Your task to perform on an android device: Go to network settings Image 0: 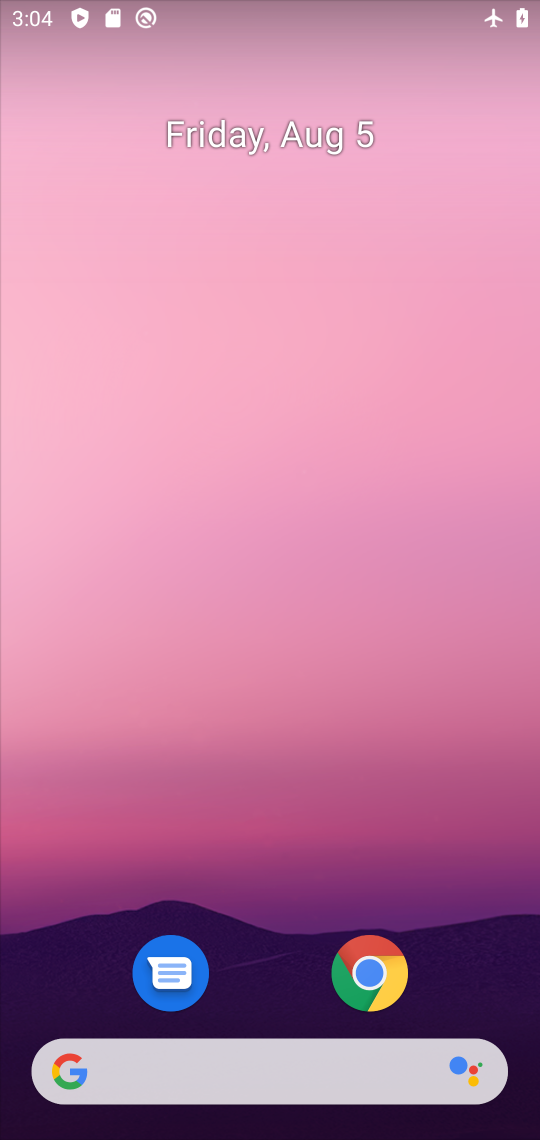
Step 0: drag from (291, 1018) to (223, 0)
Your task to perform on an android device: Go to network settings Image 1: 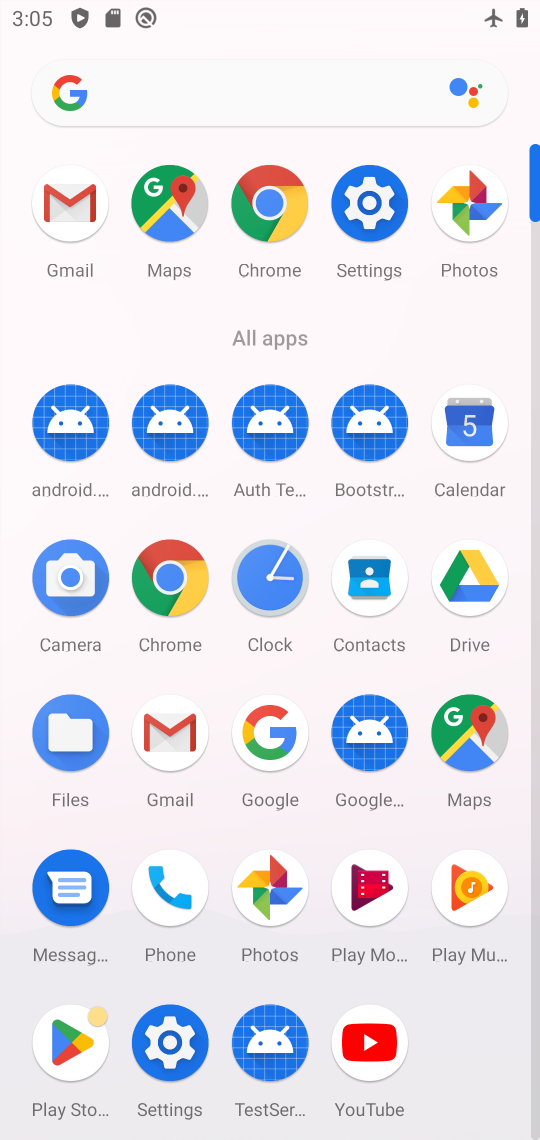
Step 1: click (188, 1046)
Your task to perform on an android device: Go to network settings Image 2: 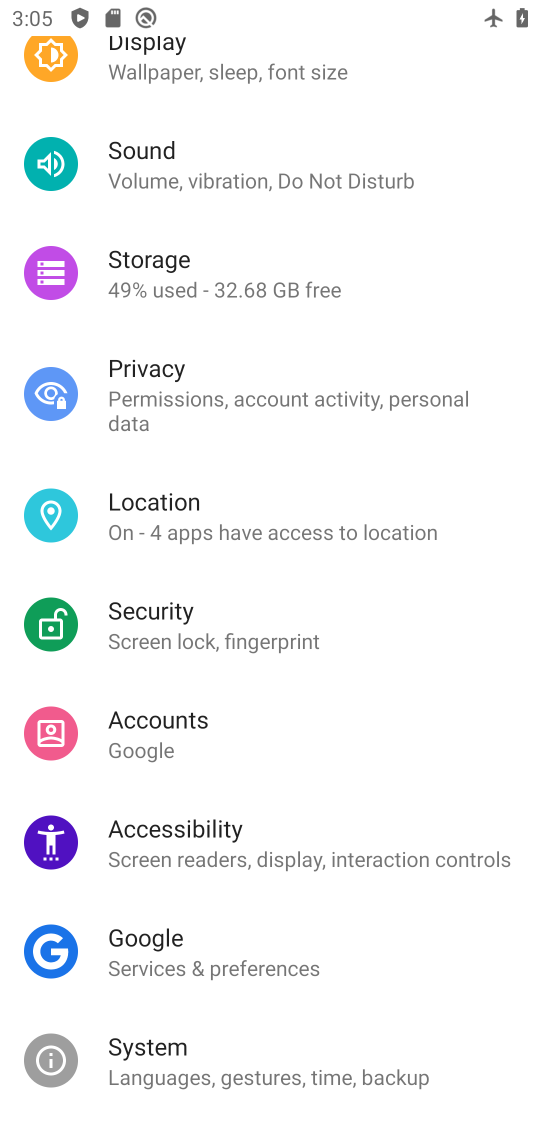
Step 2: drag from (288, 359) to (298, 1084)
Your task to perform on an android device: Go to network settings Image 3: 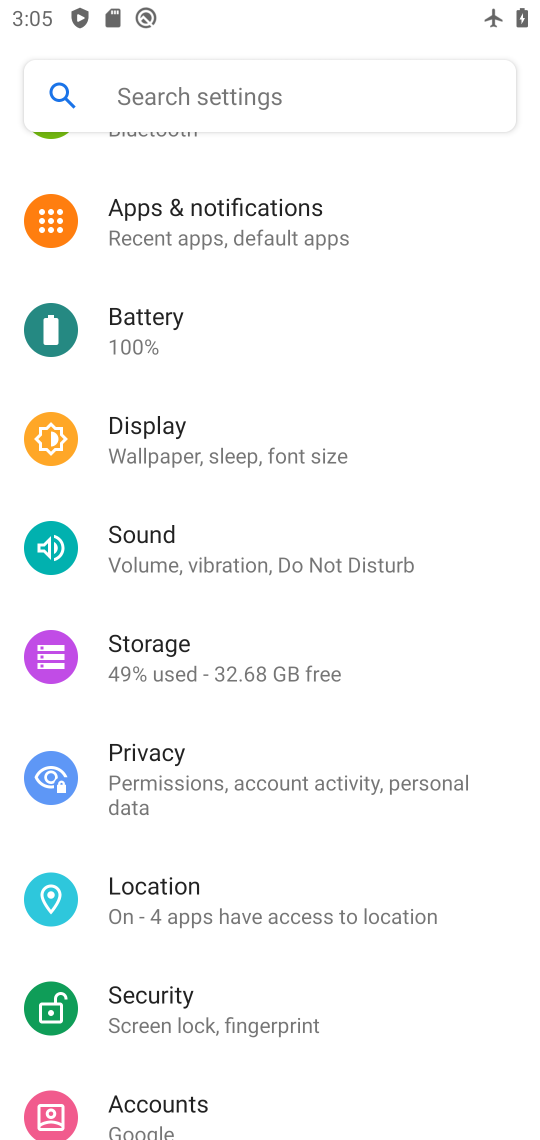
Step 3: drag from (236, 215) to (212, 965)
Your task to perform on an android device: Go to network settings Image 4: 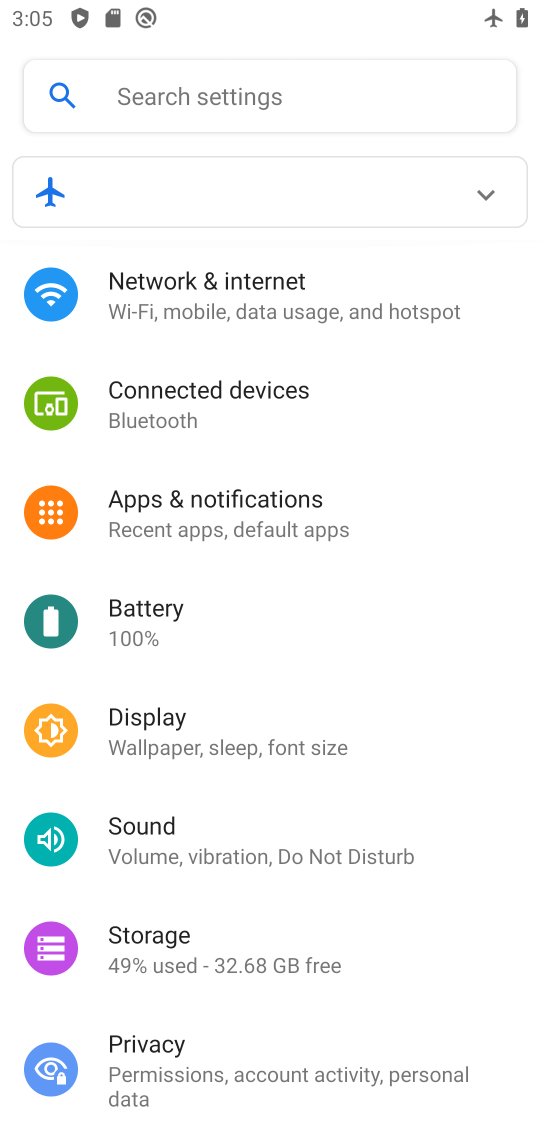
Step 4: click (159, 299)
Your task to perform on an android device: Go to network settings Image 5: 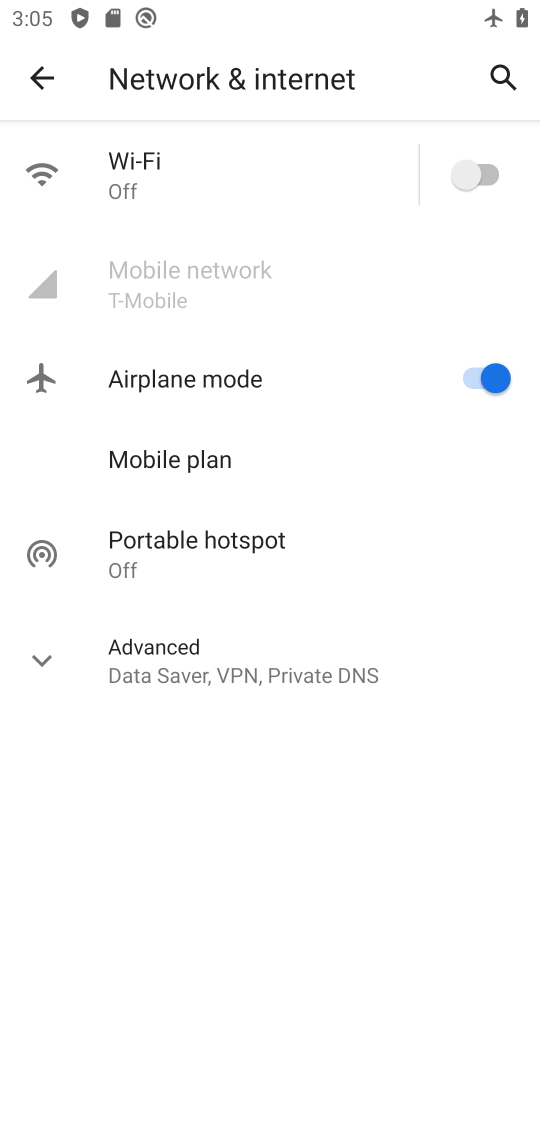
Step 5: task complete